Your task to perform on an android device: turn off smart reply in the gmail app Image 0: 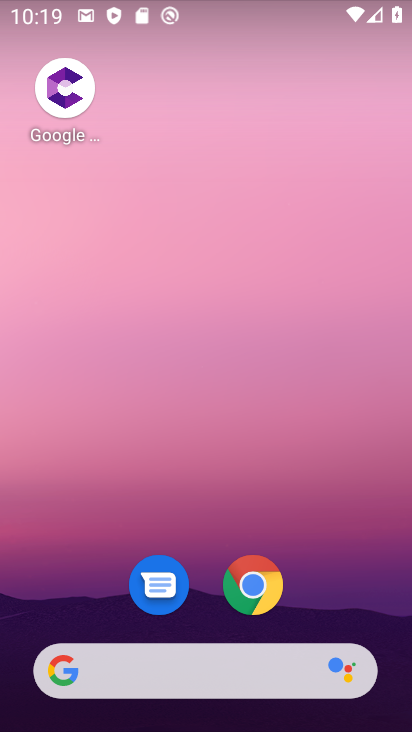
Step 0: drag from (271, 503) to (288, 0)
Your task to perform on an android device: turn off smart reply in the gmail app Image 1: 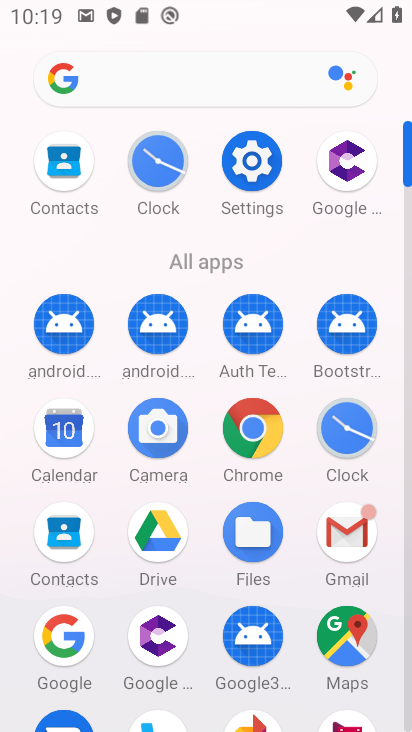
Step 1: click (344, 537)
Your task to perform on an android device: turn off smart reply in the gmail app Image 2: 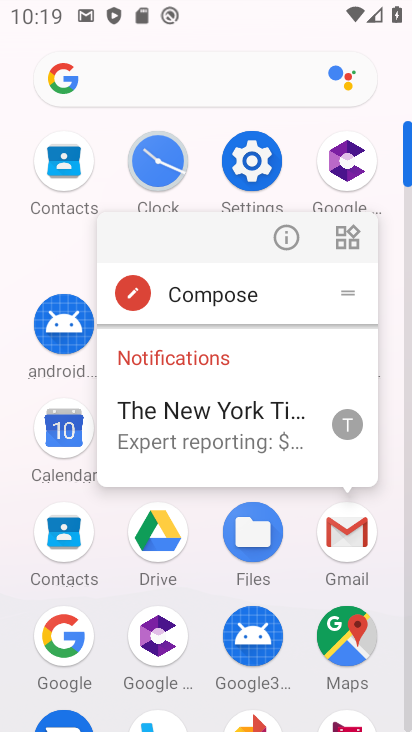
Step 2: click (347, 532)
Your task to perform on an android device: turn off smart reply in the gmail app Image 3: 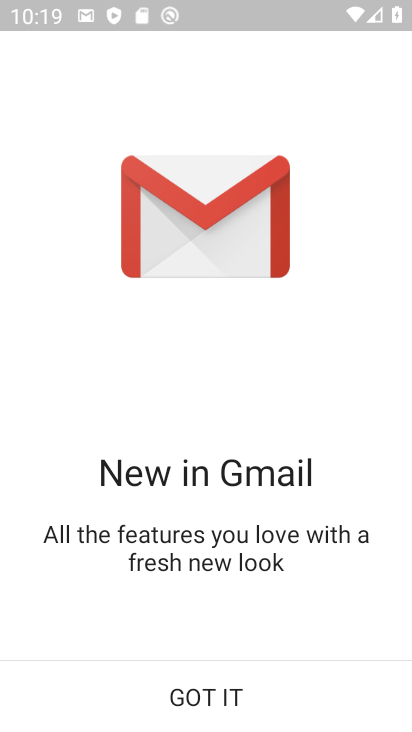
Step 3: click (267, 683)
Your task to perform on an android device: turn off smart reply in the gmail app Image 4: 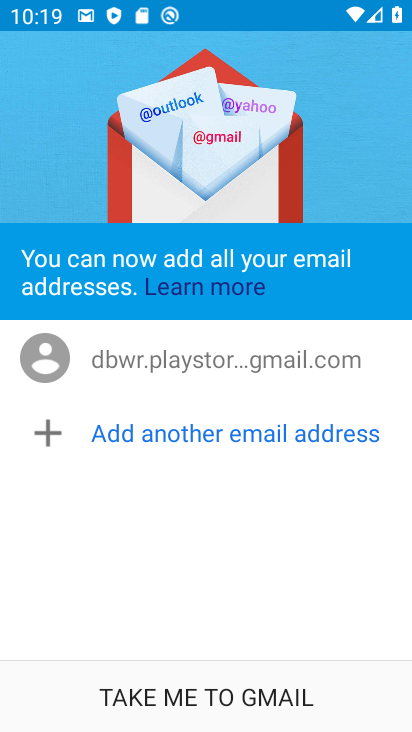
Step 4: click (267, 683)
Your task to perform on an android device: turn off smart reply in the gmail app Image 5: 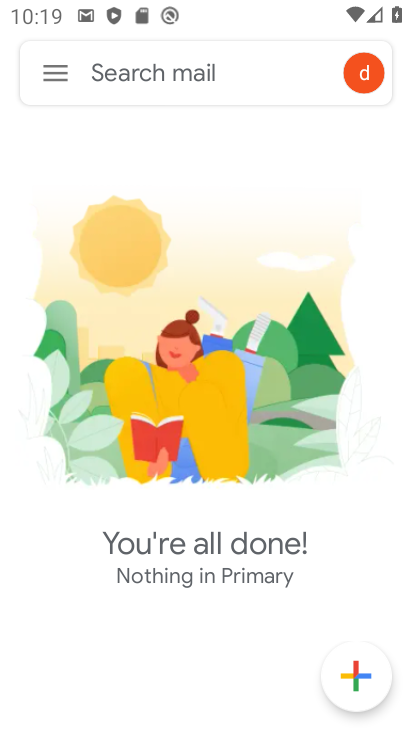
Step 5: click (49, 68)
Your task to perform on an android device: turn off smart reply in the gmail app Image 6: 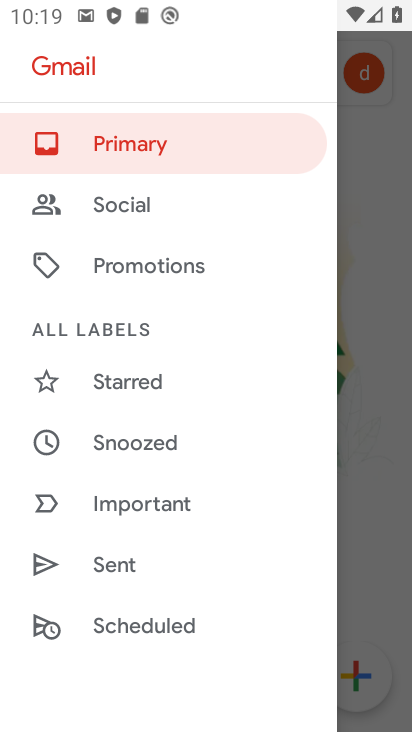
Step 6: drag from (161, 577) to (193, 1)
Your task to perform on an android device: turn off smart reply in the gmail app Image 7: 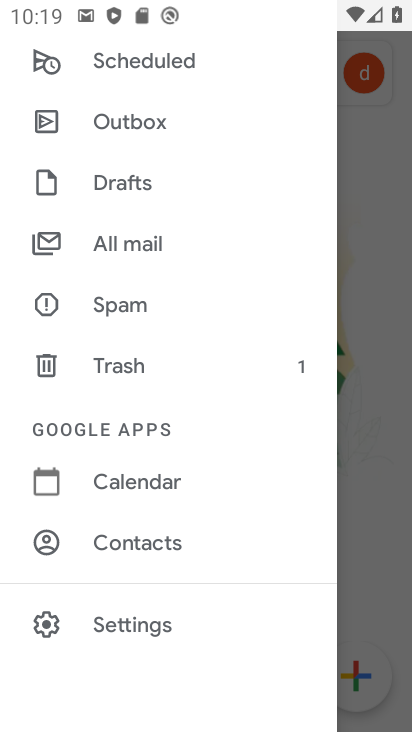
Step 7: click (136, 619)
Your task to perform on an android device: turn off smart reply in the gmail app Image 8: 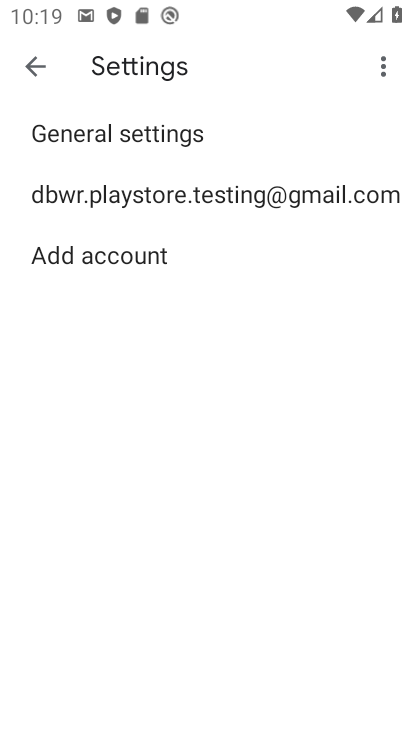
Step 8: click (272, 190)
Your task to perform on an android device: turn off smart reply in the gmail app Image 9: 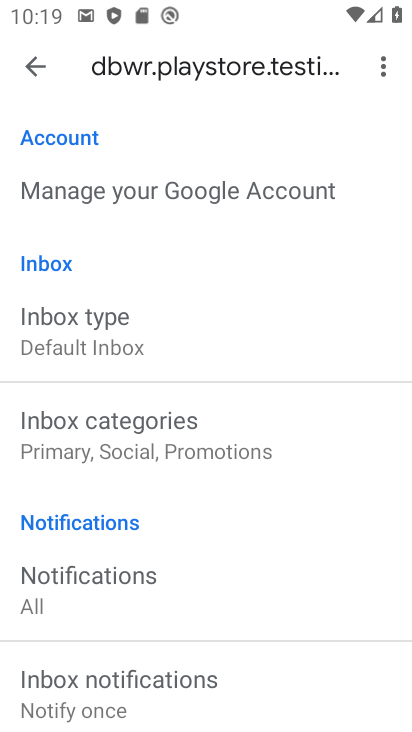
Step 9: drag from (263, 674) to (317, 13)
Your task to perform on an android device: turn off smart reply in the gmail app Image 10: 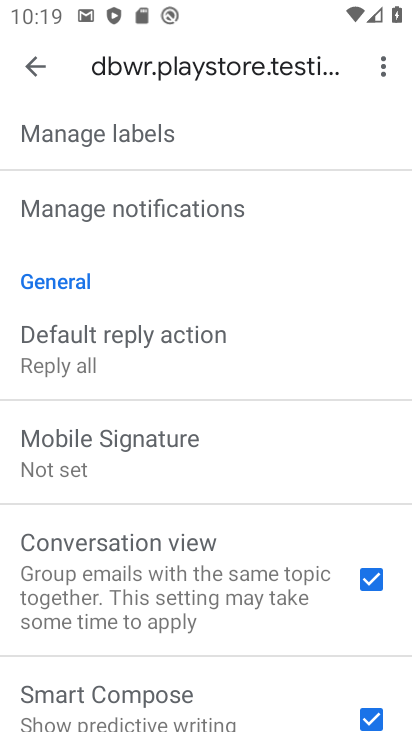
Step 10: drag from (226, 691) to (296, 239)
Your task to perform on an android device: turn off smart reply in the gmail app Image 11: 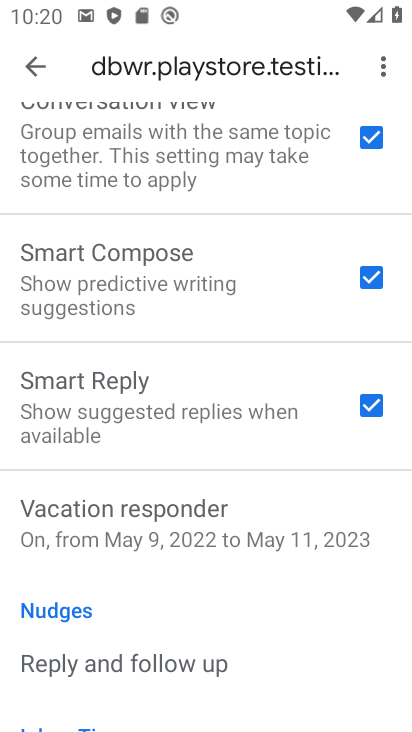
Step 11: click (367, 410)
Your task to perform on an android device: turn off smart reply in the gmail app Image 12: 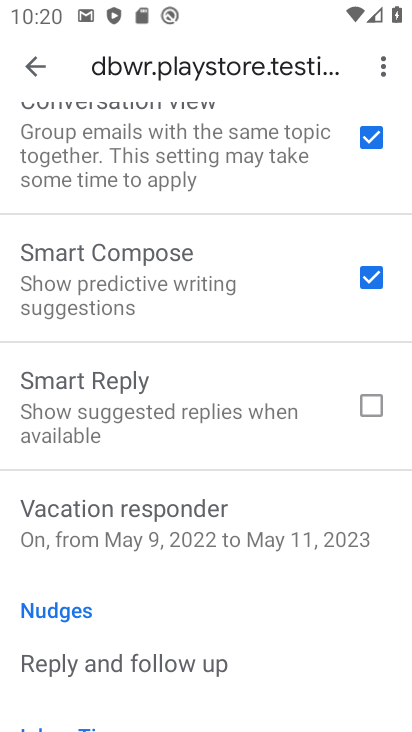
Step 12: task complete